Your task to perform on an android device: Go to Android settings Image 0: 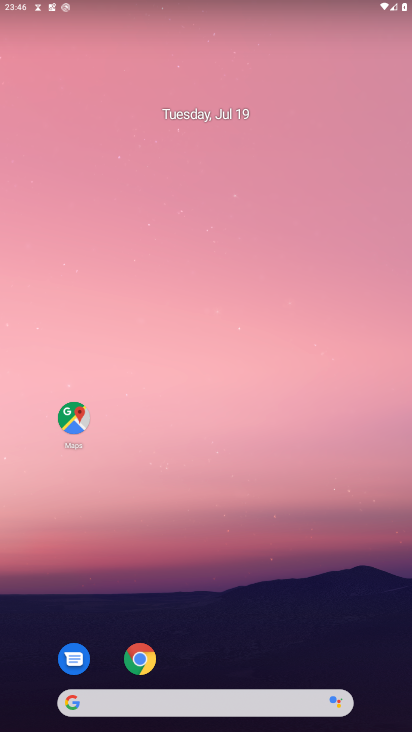
Step 0: drag from (339, 564) to (294, 6)
Your task to perform on an android device: Go to Android settings Image 1: 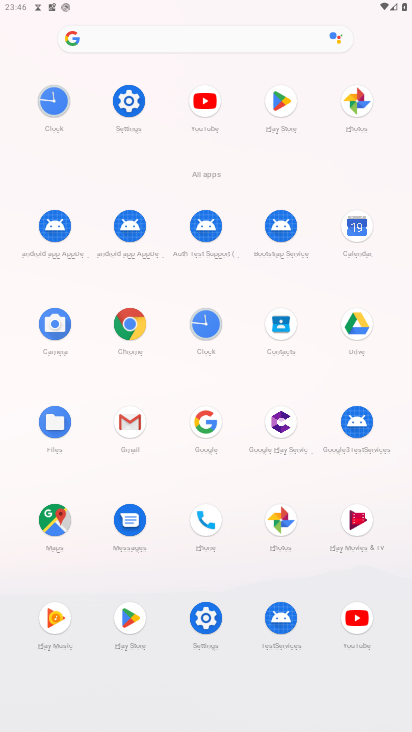
Step 1: click (199, 627)
Your task to perform on an android device: Go to Android settings Image 2: 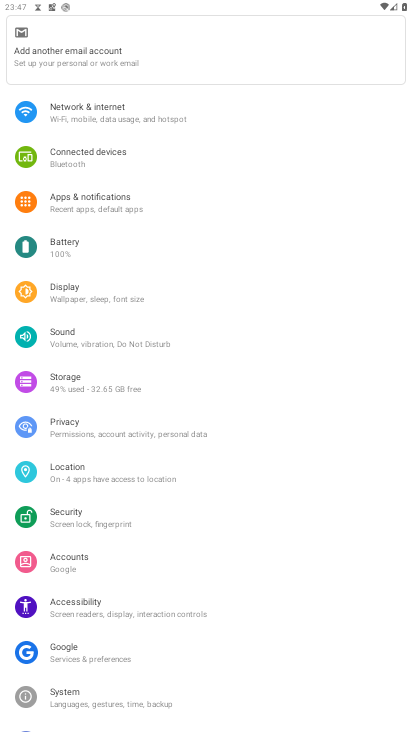
Step 2: task complete